Your task to perform on an android device: Go to internet settings Image 0: 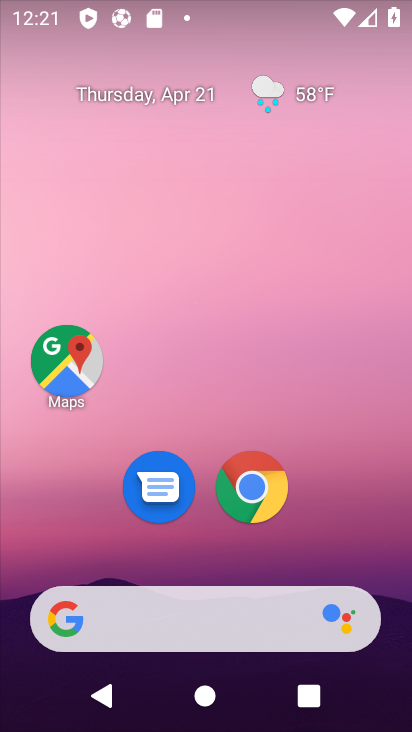
Step 0: drag from (389, 540) to (386, 1)
Your task to perform on an android device: Go to internet settings Image 1: 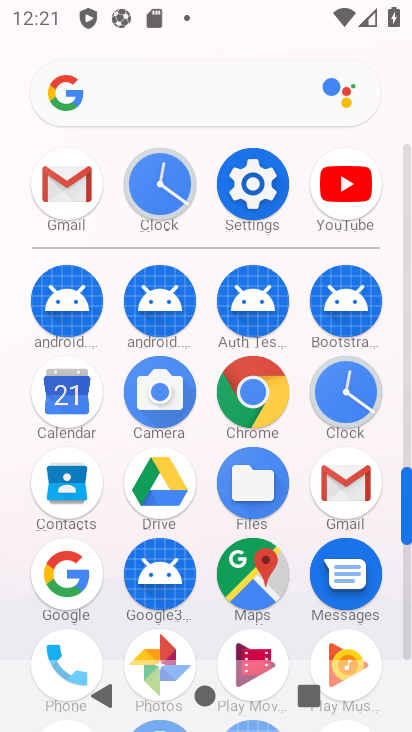
Step 1: click (254, 192)
Your task to perform on an android device: Go to internet settings Image 2: 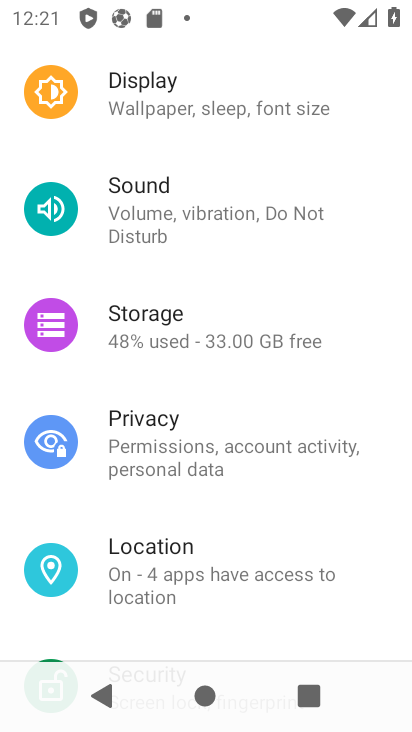
Step 2: drag from (372, 184) to (362, 538)
Your task to perform on an android device: Go to internet settings Image 3: 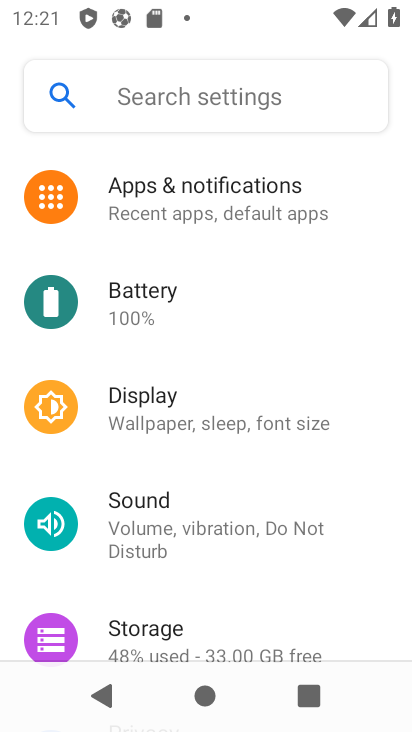
Step 3: drag from (367, 273) to (349, 502)
Your task to perform on an android device: Go to internet settings Image 4: 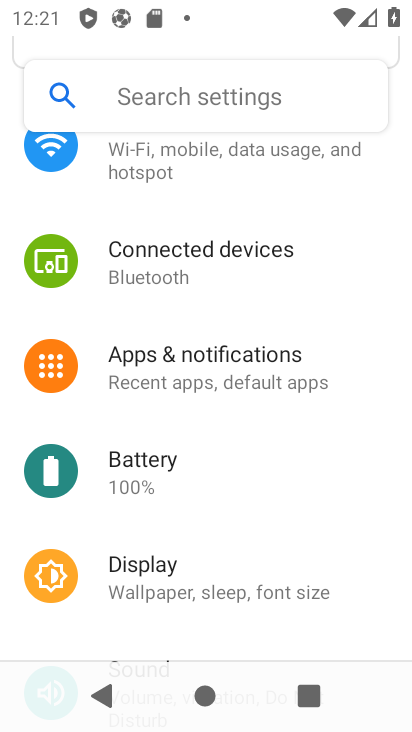
Step 4: drag from (380, 303) to (357, 487)
Your task to perform on an android device: Go to internet settings Image 5: 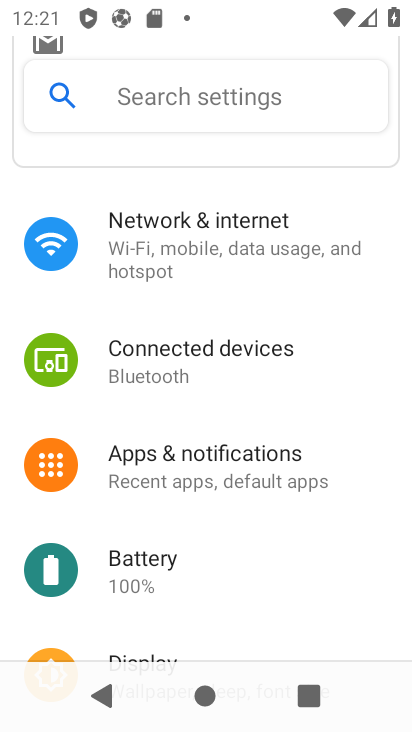
Step 5: click (179, 251)
Your task to perform on an android device: Go to internet settings Image 6: 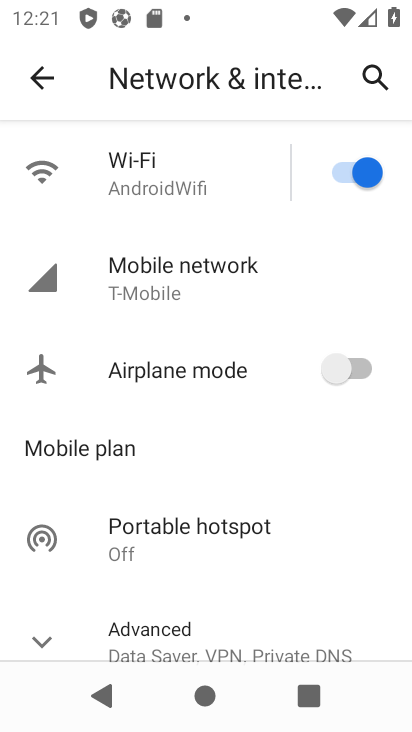
Step 6: drag from (231, 520) to (182, 196)
Your task to perform on an android device: Go to internet settings Image 7: 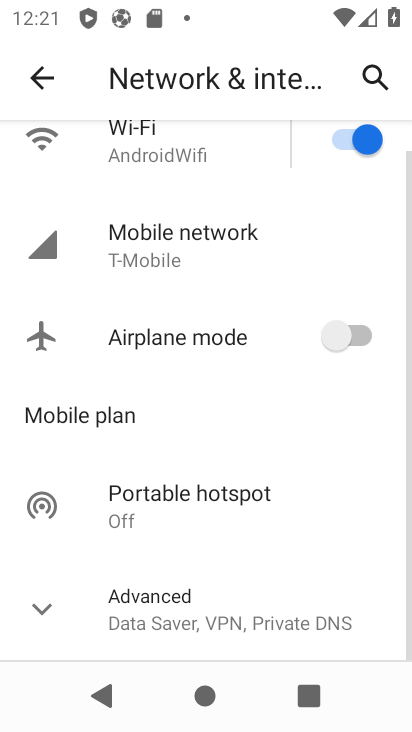
Step 7: click (51, 617)
Your task to perform on an android device: Go to internet settings Image 8: 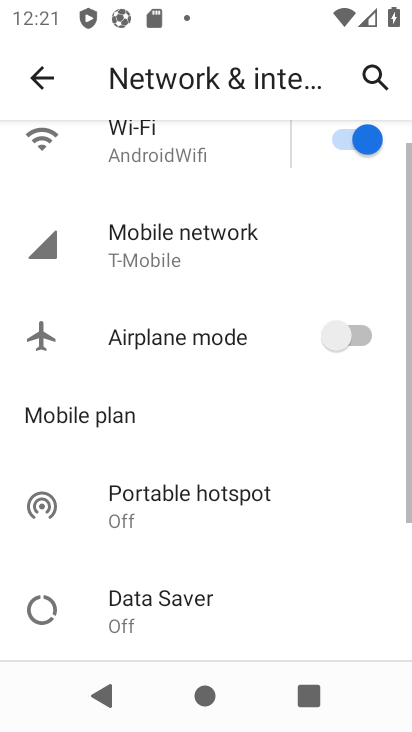
Step 8: task complete